Your task to perform on an android device: change the upload size in google photos Image 0: 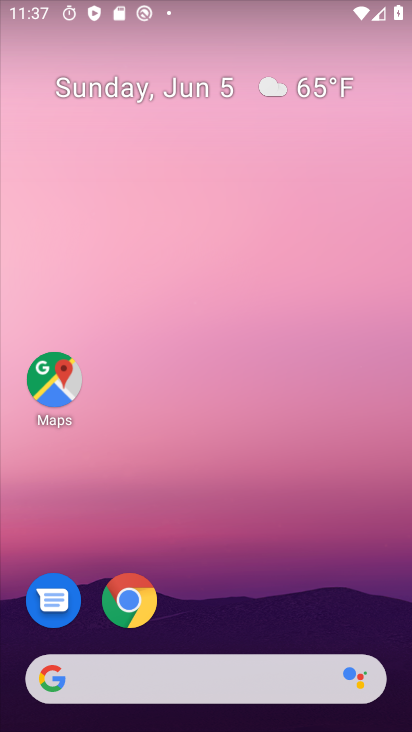
Step 0: drag from (228, 643) to (191, 33)
Your task to perform on an android device: change the upload size in google photos Image 1: 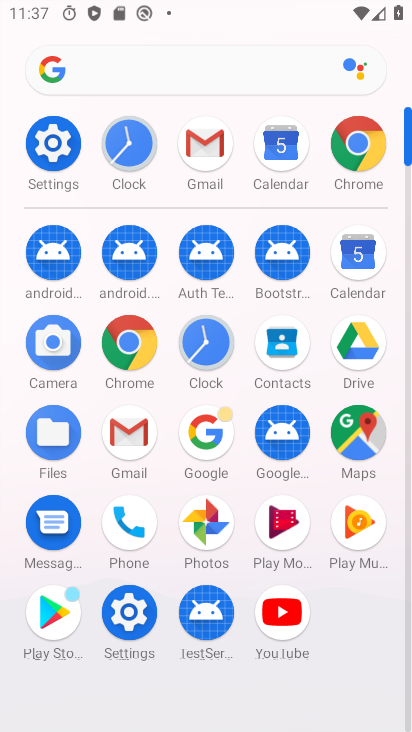
Step 1: click (203, 516)
Your task to perform on an android device: change the upload size in google photos Image 2: 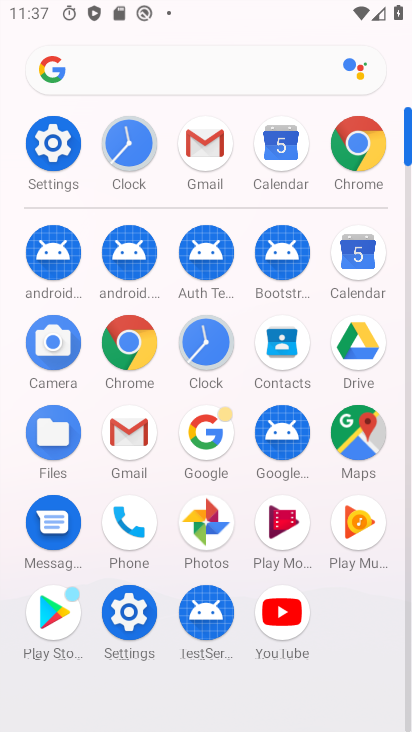
Step 2: click (203, 515)
Your task to perform on an android device: change the upload size in google photos Image 3: 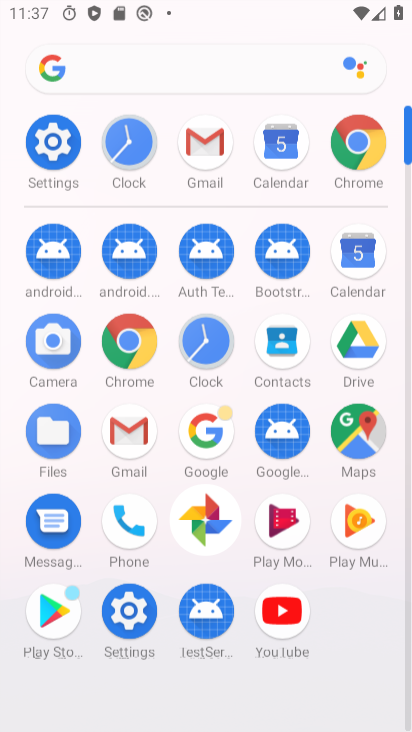
Step 3: click (203, 515)
Your task to perform on an android device: change the upload size in google photos Image 4: 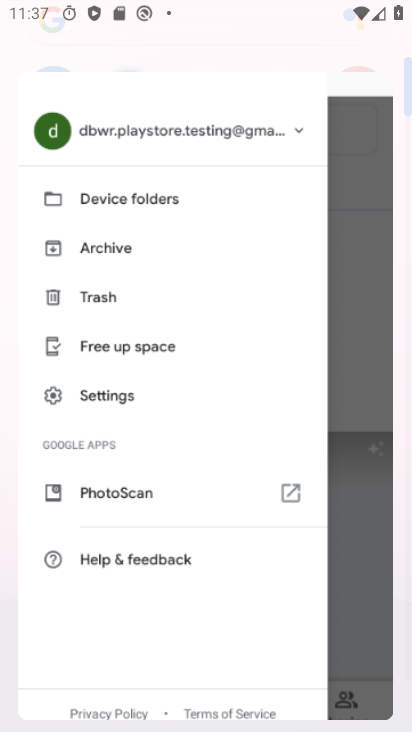
Step 4: click (203, 515)
Your task to perform on an android device: change the upload size in google photos Image 5: 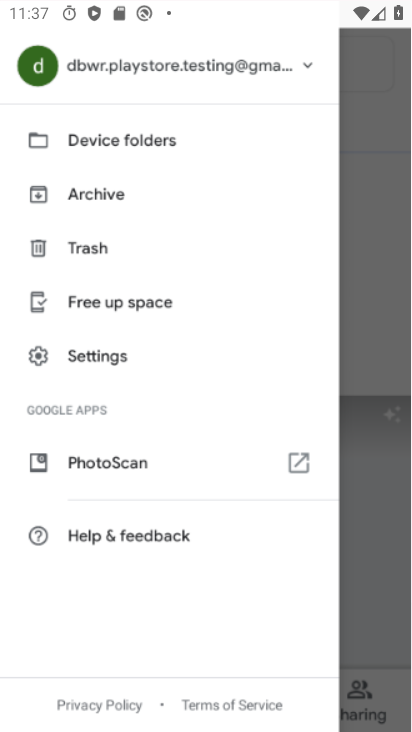
Step 5: click (203, 515)
Your task to perform on an android device: change the upload size in google photos Image 6: 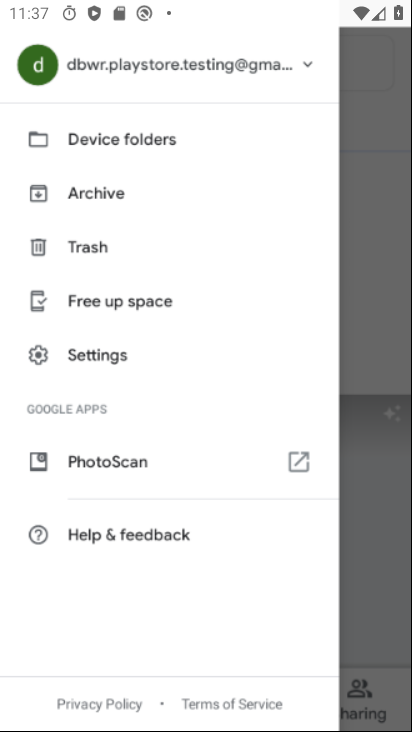
Step 6: click (203, 515)
Your task to perform on an android device: change the upload size in google photos Image 7: 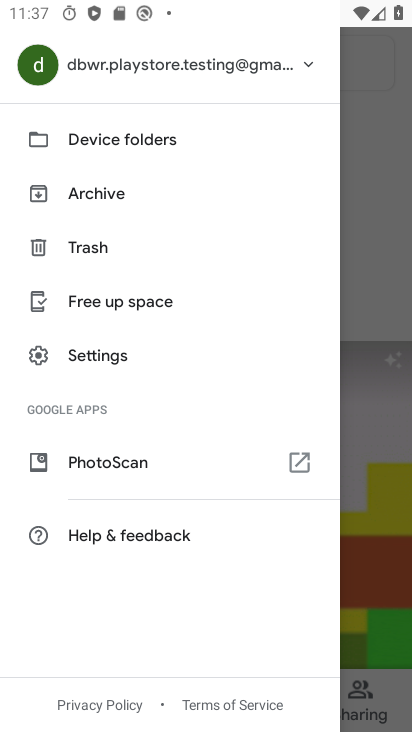
Step 7: click (85, 345)
Your task to perform on an android device: change the upload size in google photos Image 8: 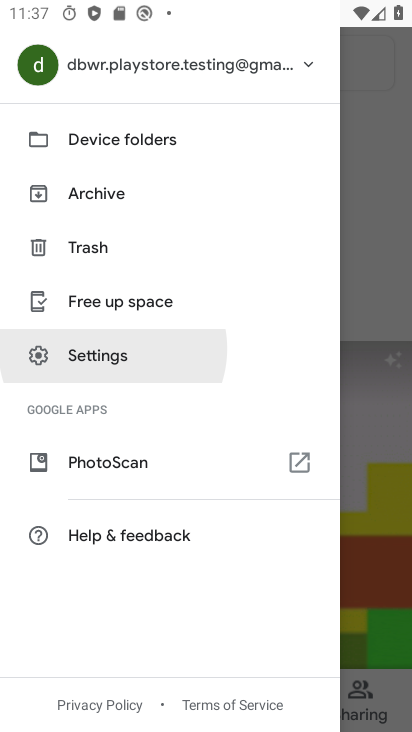
Step 8: click (89, 346)
Your task to perform on an android device: change the upload size in google photos Image 9: 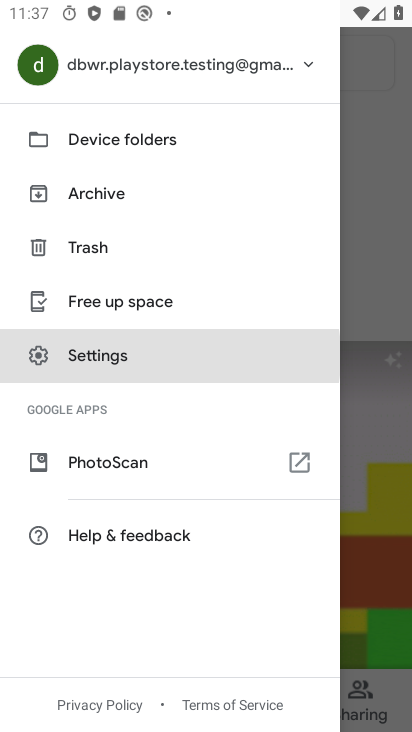
Step 9: click (89, 346)
Your task to perform on an android device: change the upload size in google photos Image 10: 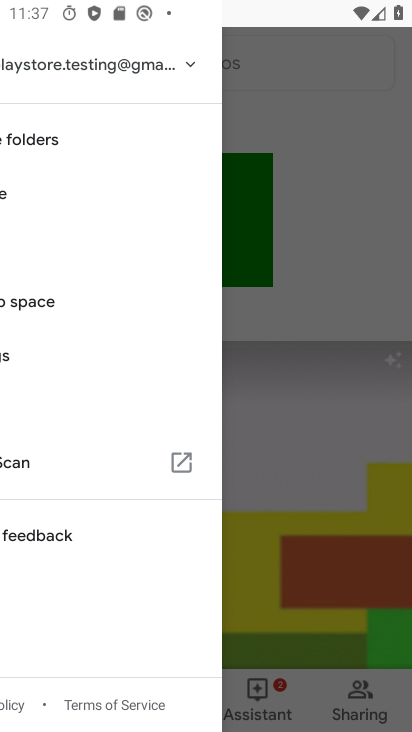
Step 10: click (91, 348)
Your task to perform on an android device: change the upload size in google photos Image 11: 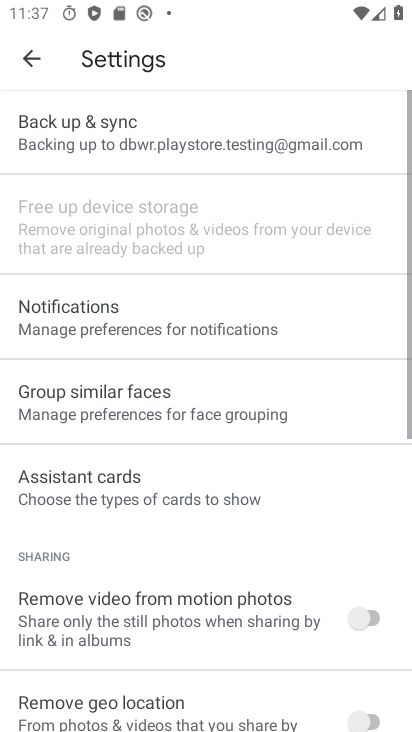
Step 11: click (91, 348)
Your task to perform on an android device: change the upload size in google photos Image 12: 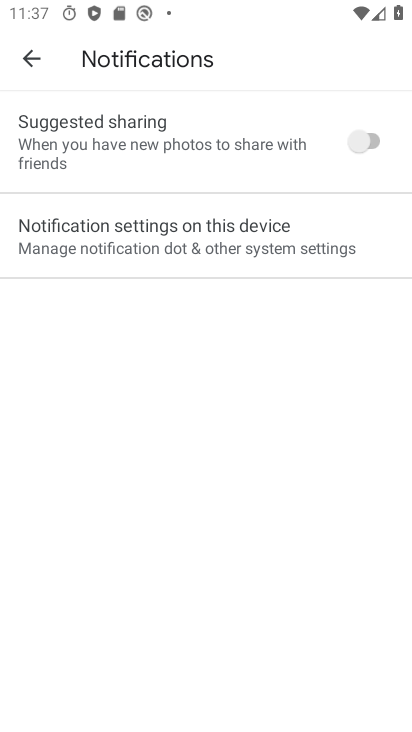
Step 12: click (17, 44)
Your task to perform on an android device: change the upload size in google photos Image 13: 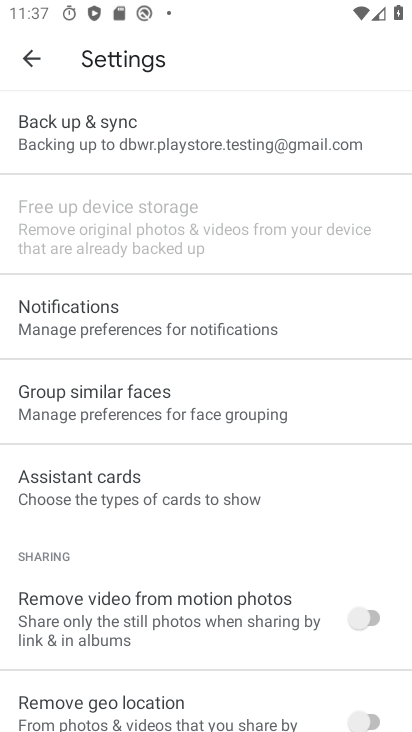
Step 13: drag from (98, 573) to (64, 248)
Your task to perform on an android device: change the upload size in google photos Image 14: 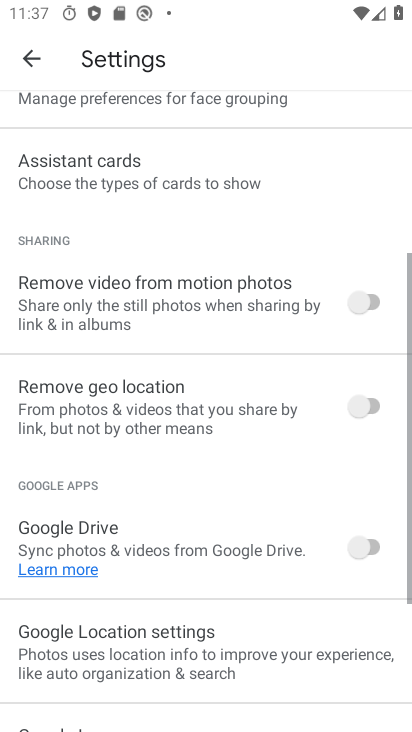
Step 14: drag from (127, 599) to (102, 61)
Your task to perform on an android device: change the upload size in google photos Image 15: 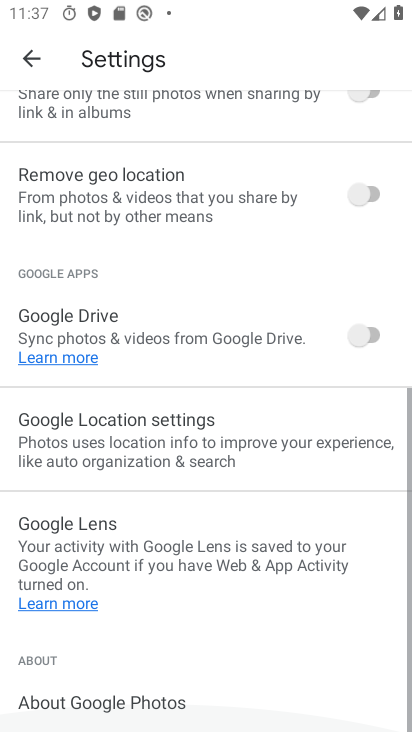
Step 15: drag from (160, 452) to (146, 81)
Your task to perform on an android device: change the upload size in google photos Image 16: 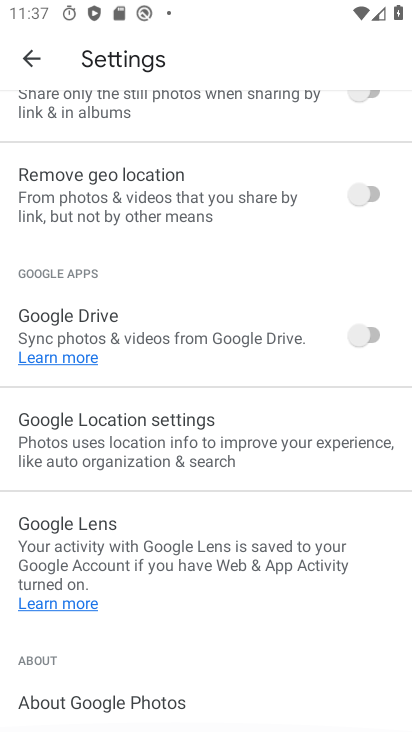
Step 16: drag from (185, 370) to (176, 115)
Your task to perform on an android device: change the upload size in google photos Image 17: 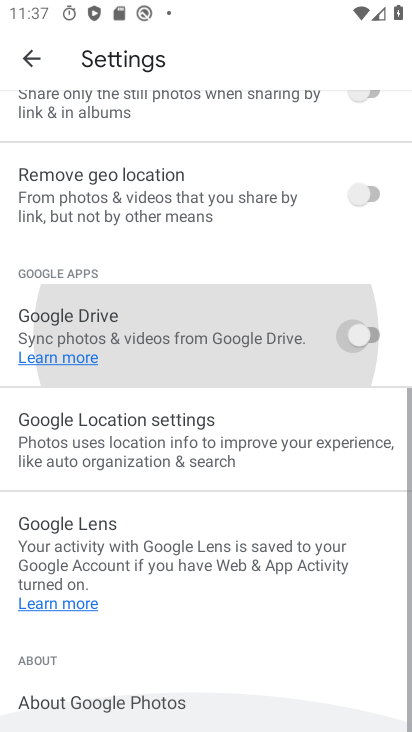
Step 17: drag from (176, 236) to (96, 518)
Your task to perform on an android device: change the upload size in google photos Image 18: 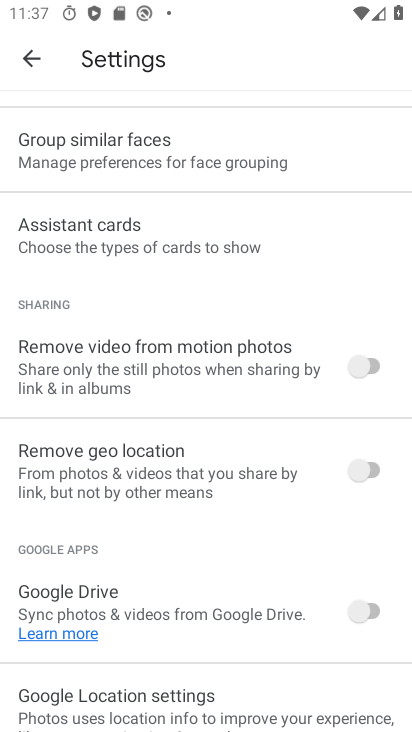
Step 18: drag from (67, 249) to (103, 383)
Your task to perform on an android device: change the upload size in google photos Image 19: 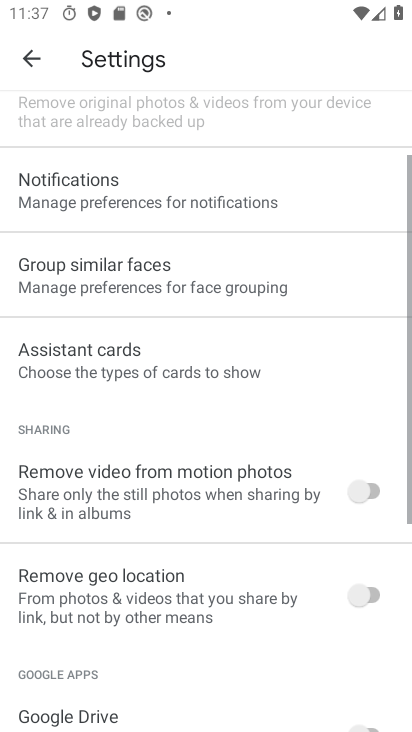
Step 19: drag from (128, 252) to (140, 441)
Your task to perform on an android device: change the upload size in google photos Image 20: 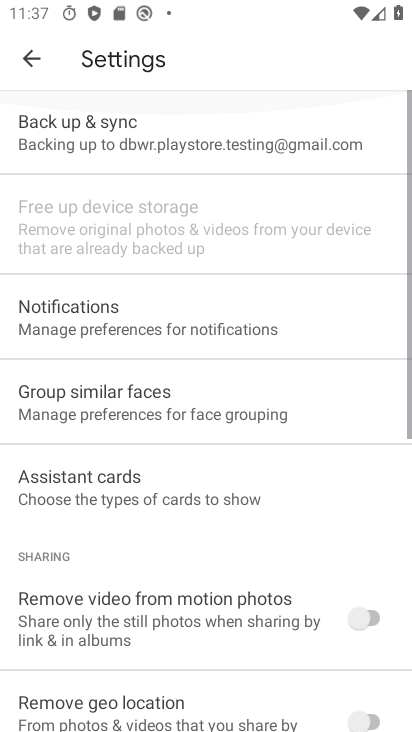
Step 20: drag from (121, 203) to (127, 532)
Your task to perform on an android device: change the upload size in google photos Image 21: 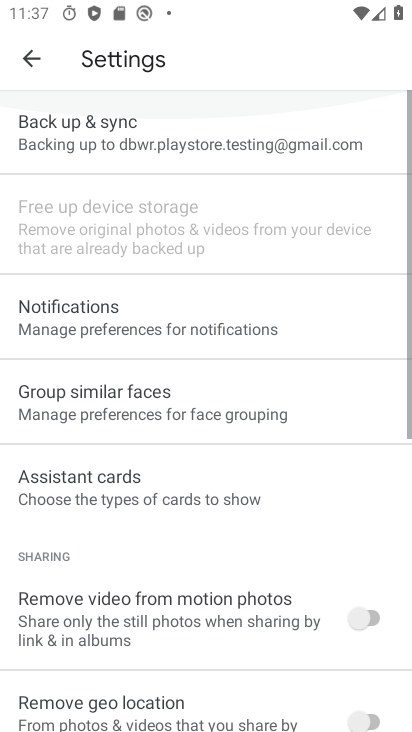
Step 21: drag from (97, 230) to (184, 658)
Your task to perform on an android device: change the upload size in google photos Image 22: 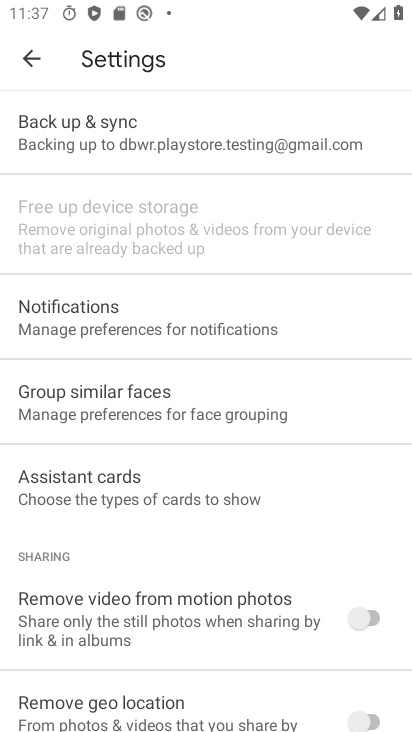
Step 22: click (81, 127)
Your task to perform on an android device: change the upload size in google photos Image 23: 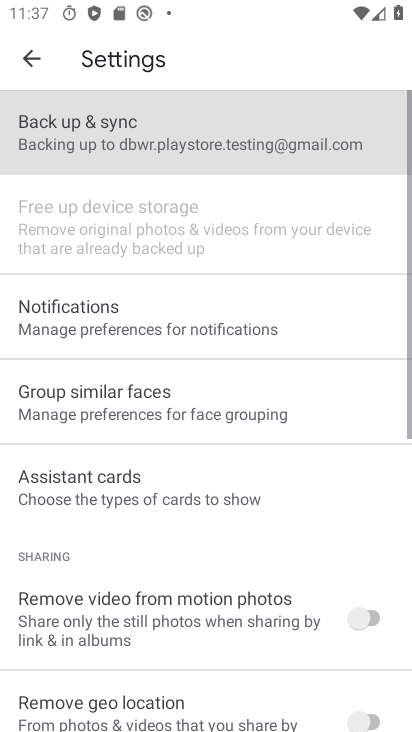
Step 23: click (81, 129)
Your task to perform on an android device: change the upload size in google photos Image 24: 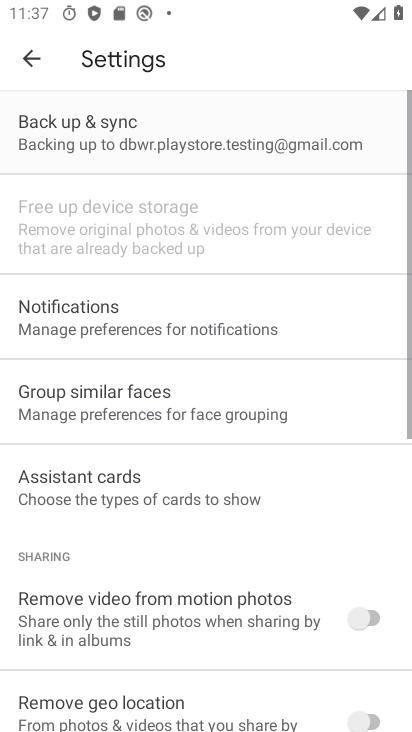
Step 24: click (81, 129)
Your task to perform on an android device: change the upload size in google photos Image 25: 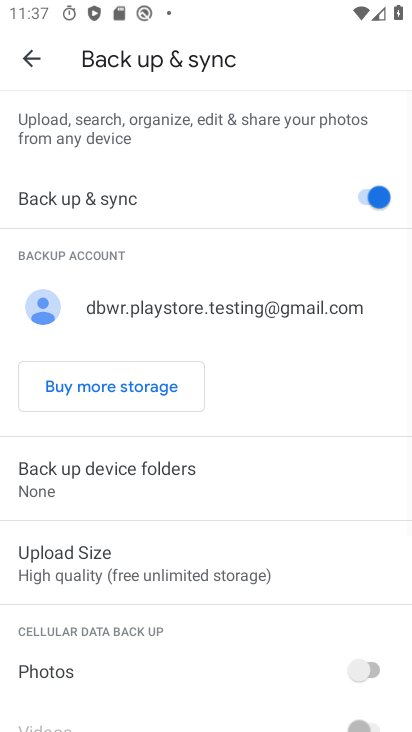
Step 25: click (44, 564)
Your task to perform on an android device: change the upload size in google photos Image 26: 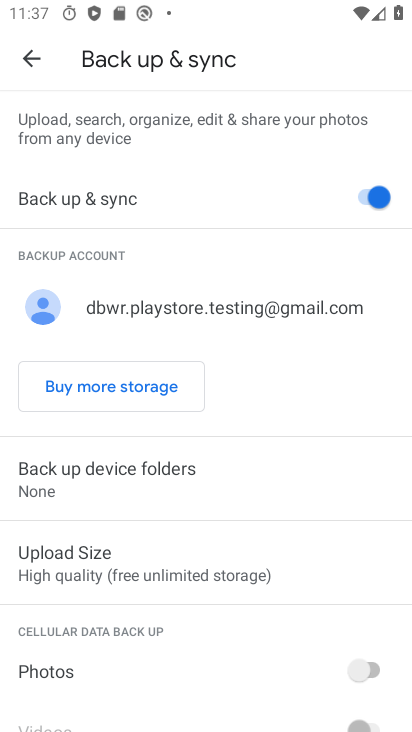
Step 26: click (44, 564)
Your task to perform on an android device: change the upload size in google photos Image 27: 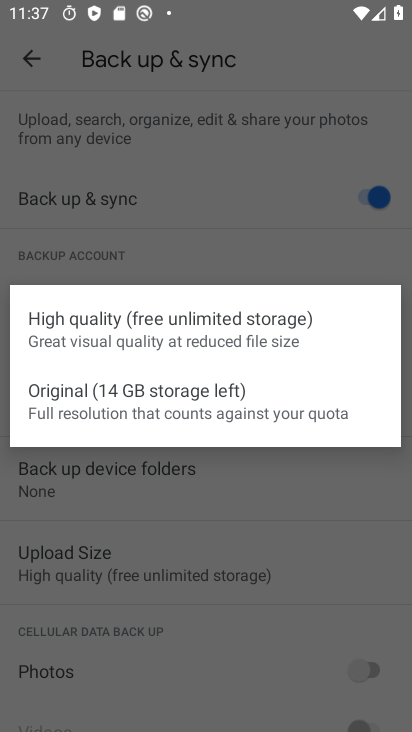
Step 27: click (50, 392)
Your task to perform on an android device: change the upload size in google photos Image 28: 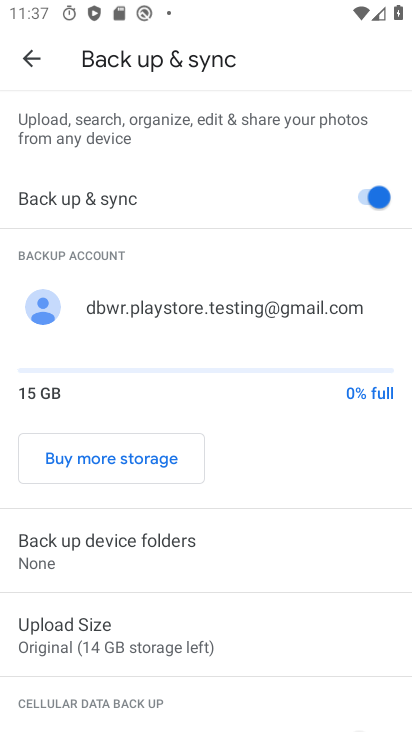
Step 28: task complete